Your task to perform on an android device: Is it going to rain today? Image 0: 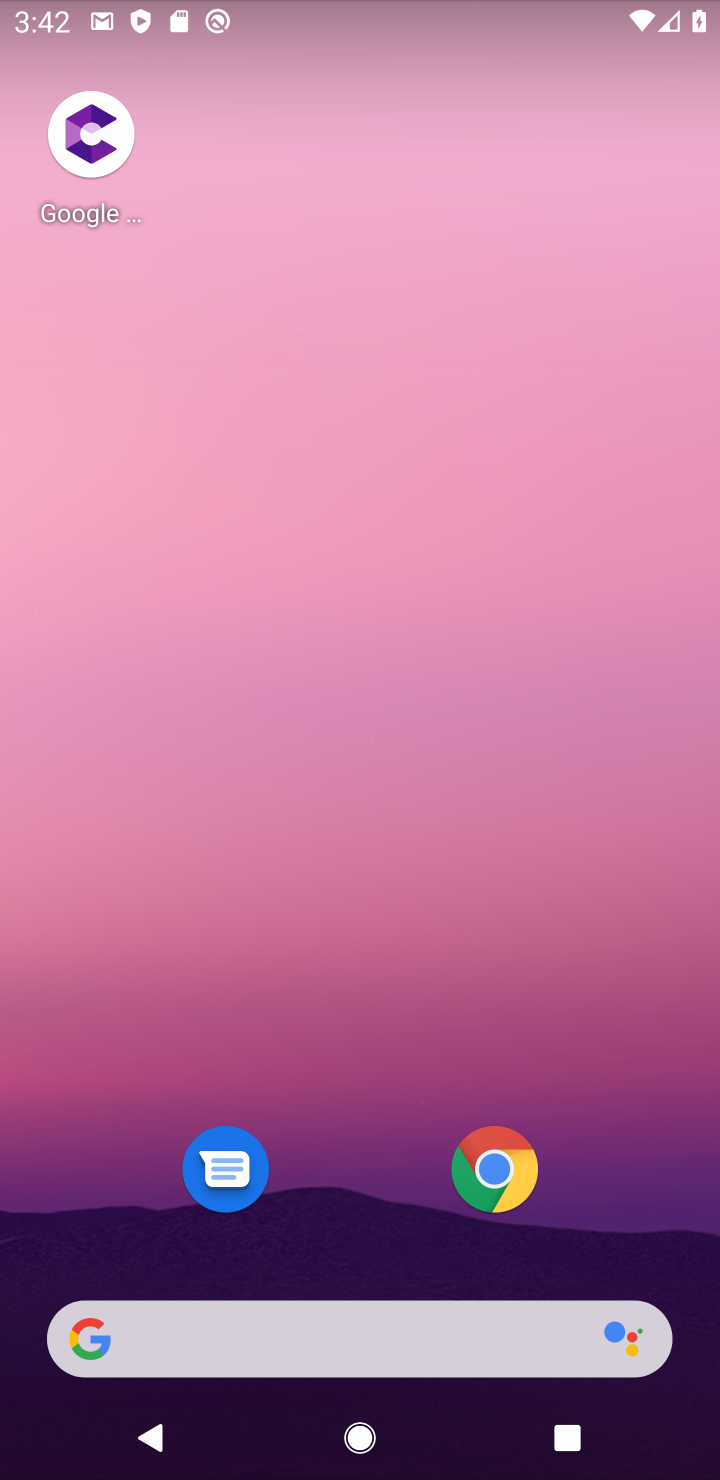
Step 0: click (339, 1326)
Your task to perform on an android device: Is it going to rain today? Image 1: 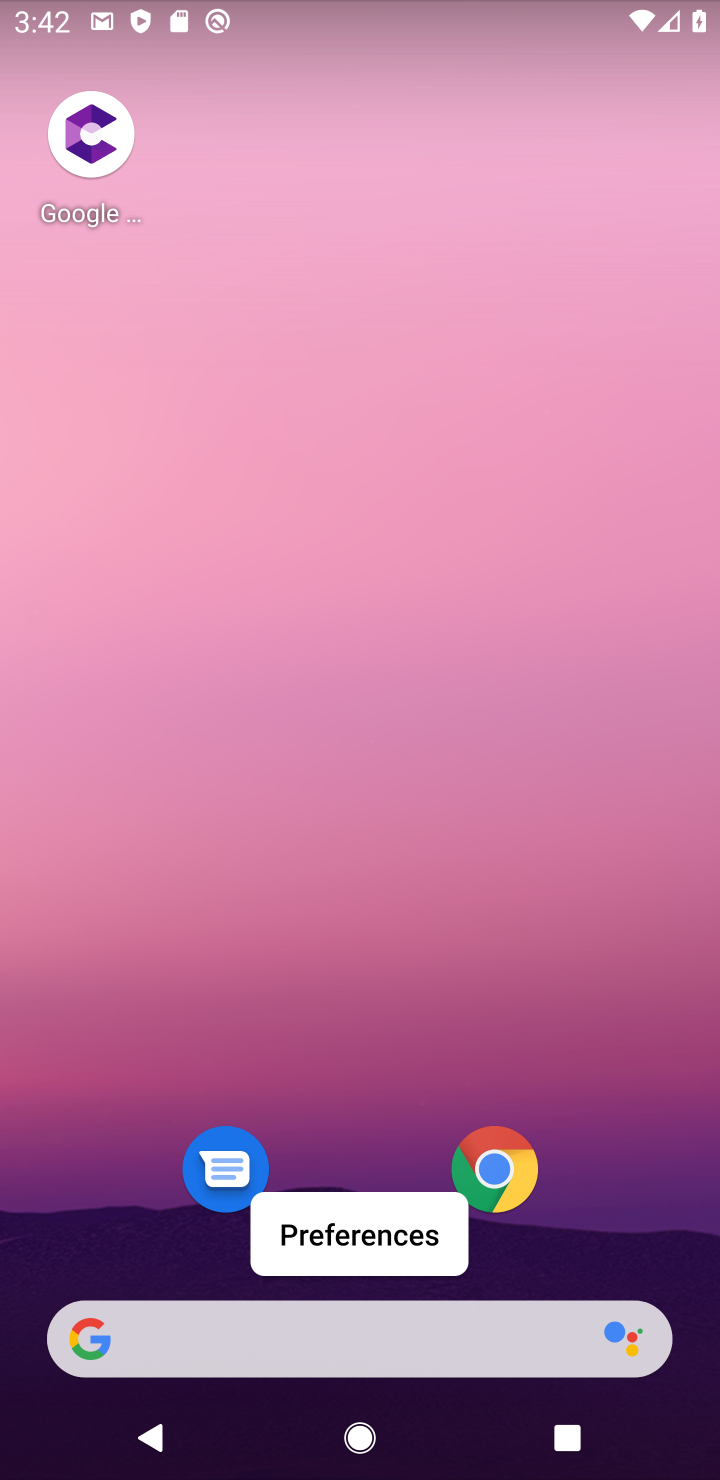
Step 1: click (374, 1341)
Your task to perform on an android device: Is it going to rain today? Image 2: 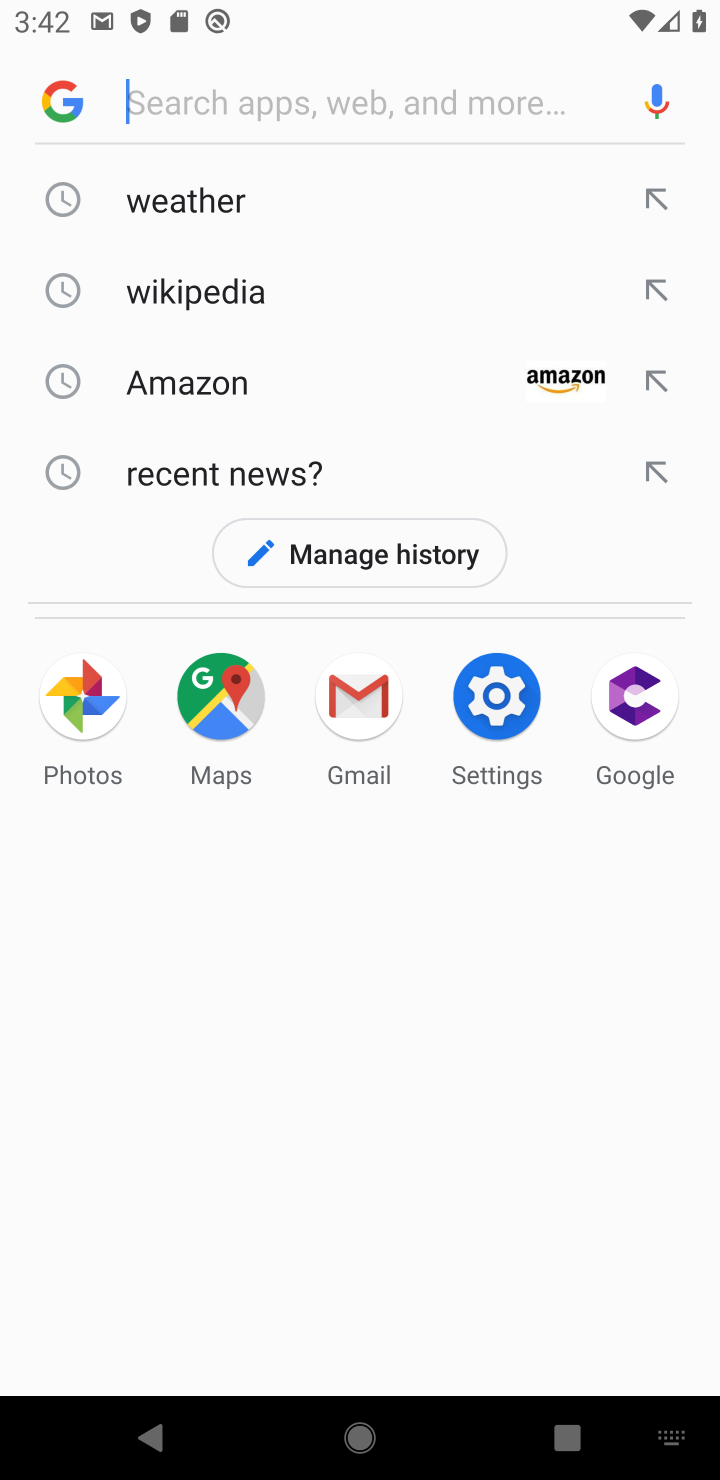
Step 2: click (193, 197)
Your task to perform on an android device: Is it going to rain today? Image 3: 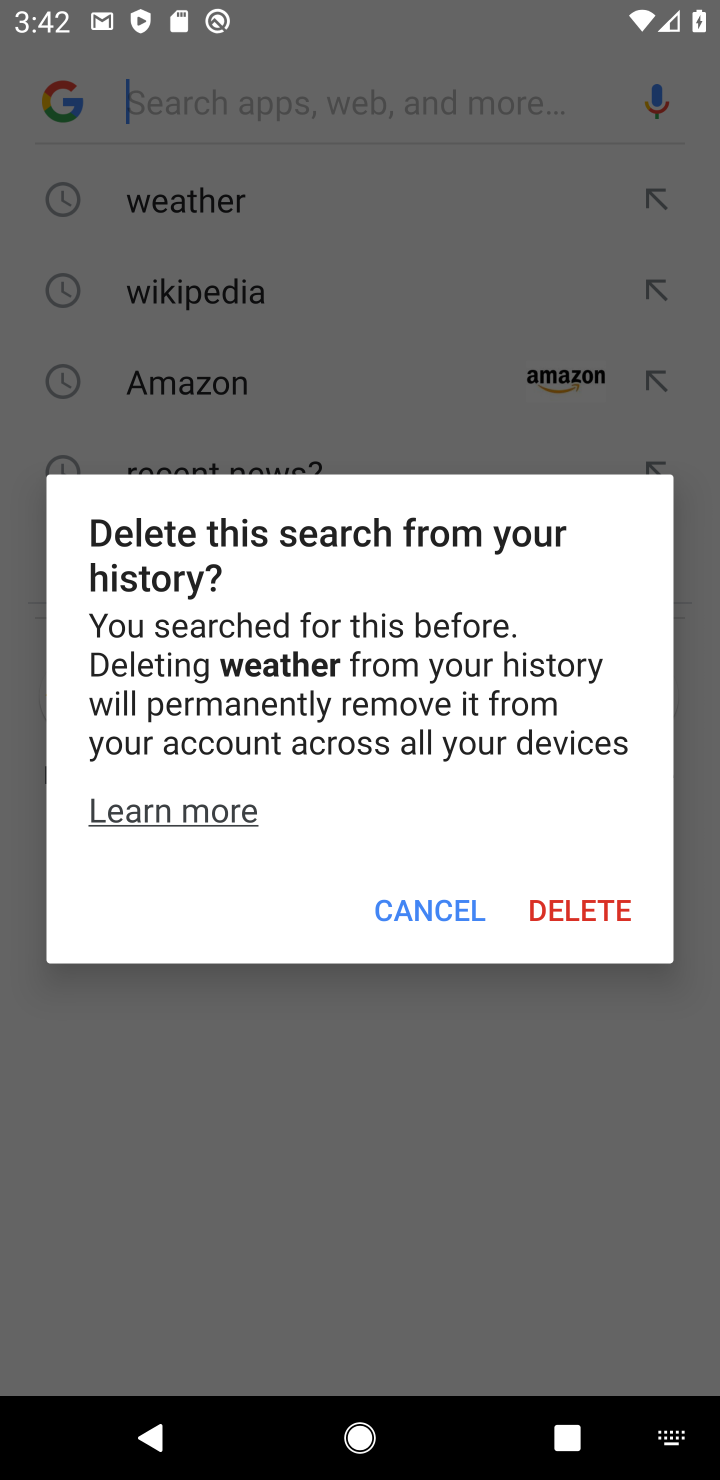
Step 3: click (395, 901)
Your task to perform on an android device: Is it going to rain today? Image 4: 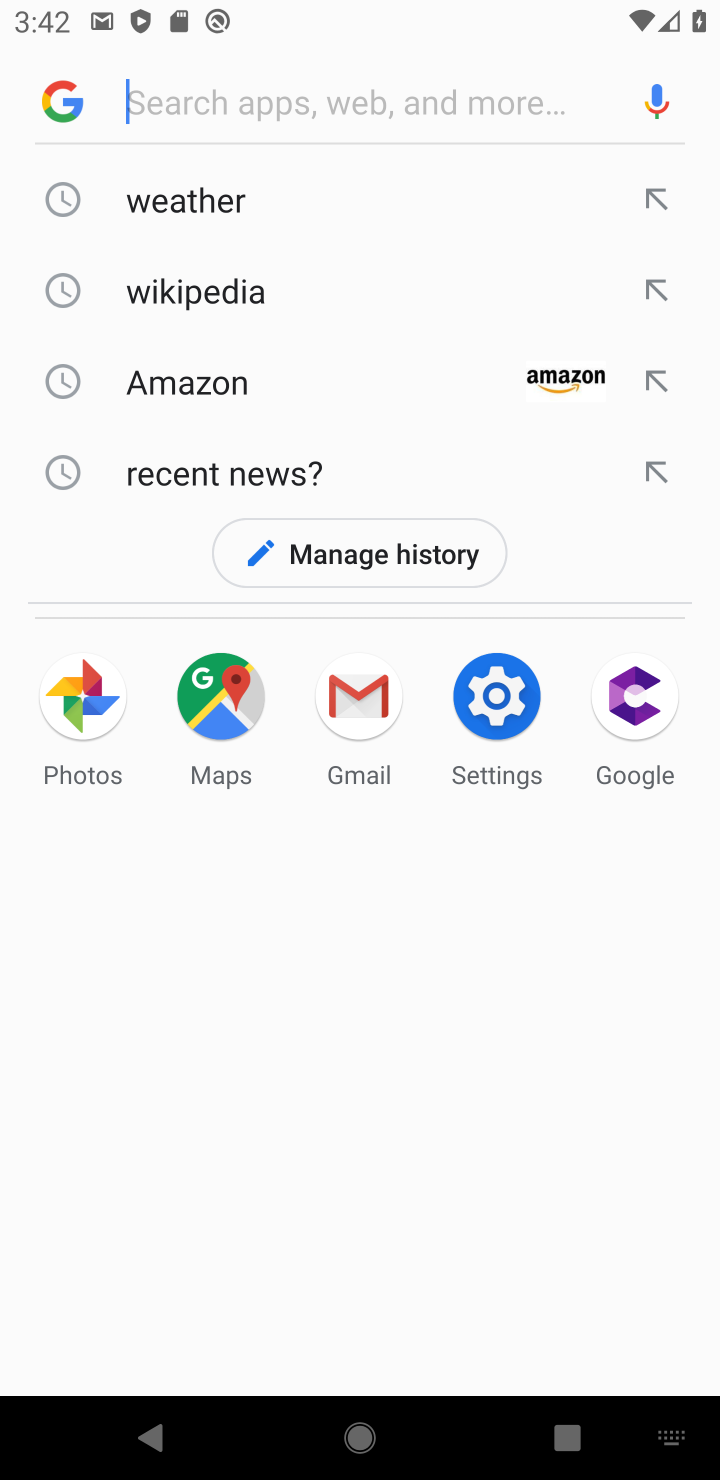
Step 4: click (221, 199)
Your task to perform on an android device: Is it going to rain today? Image 5: 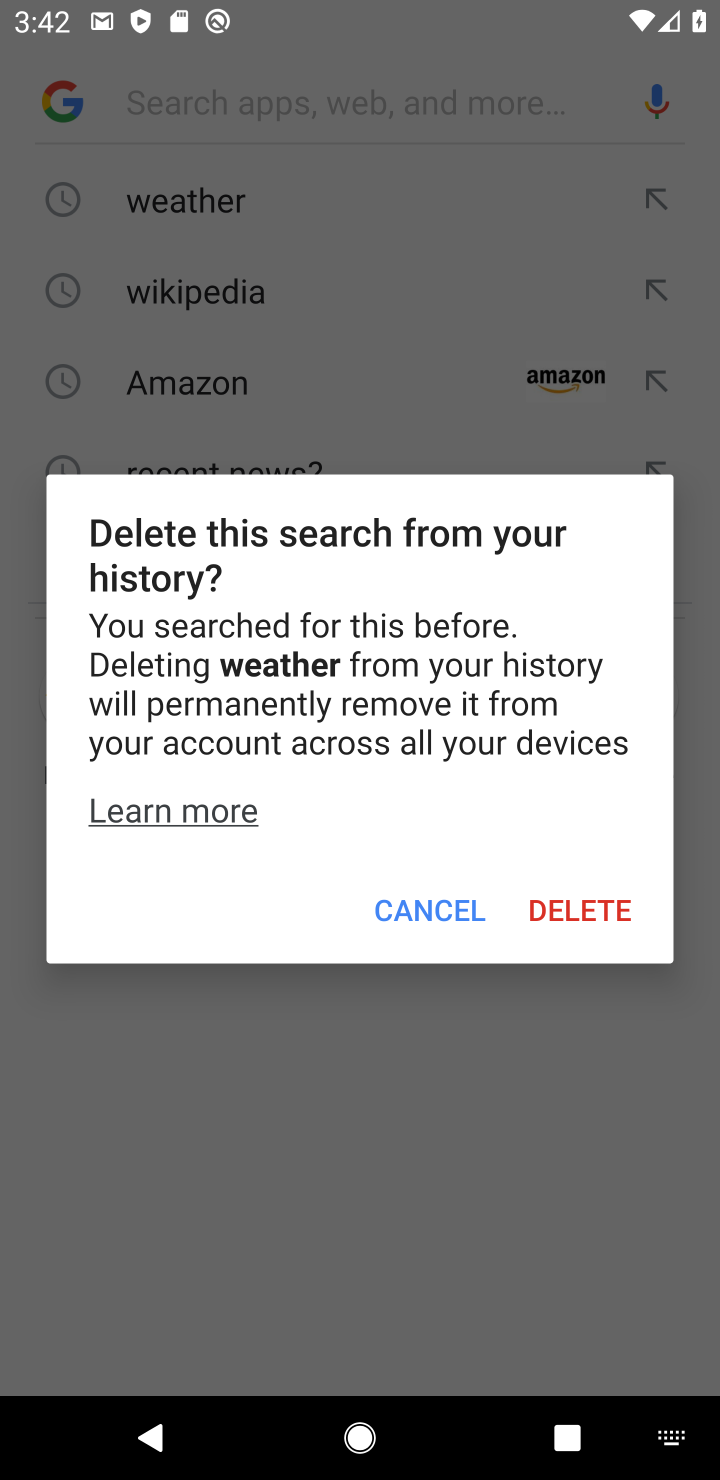
Step 5: click (444, 924)
Your task to perform on an android device: Is it going to rain today? Image 6: 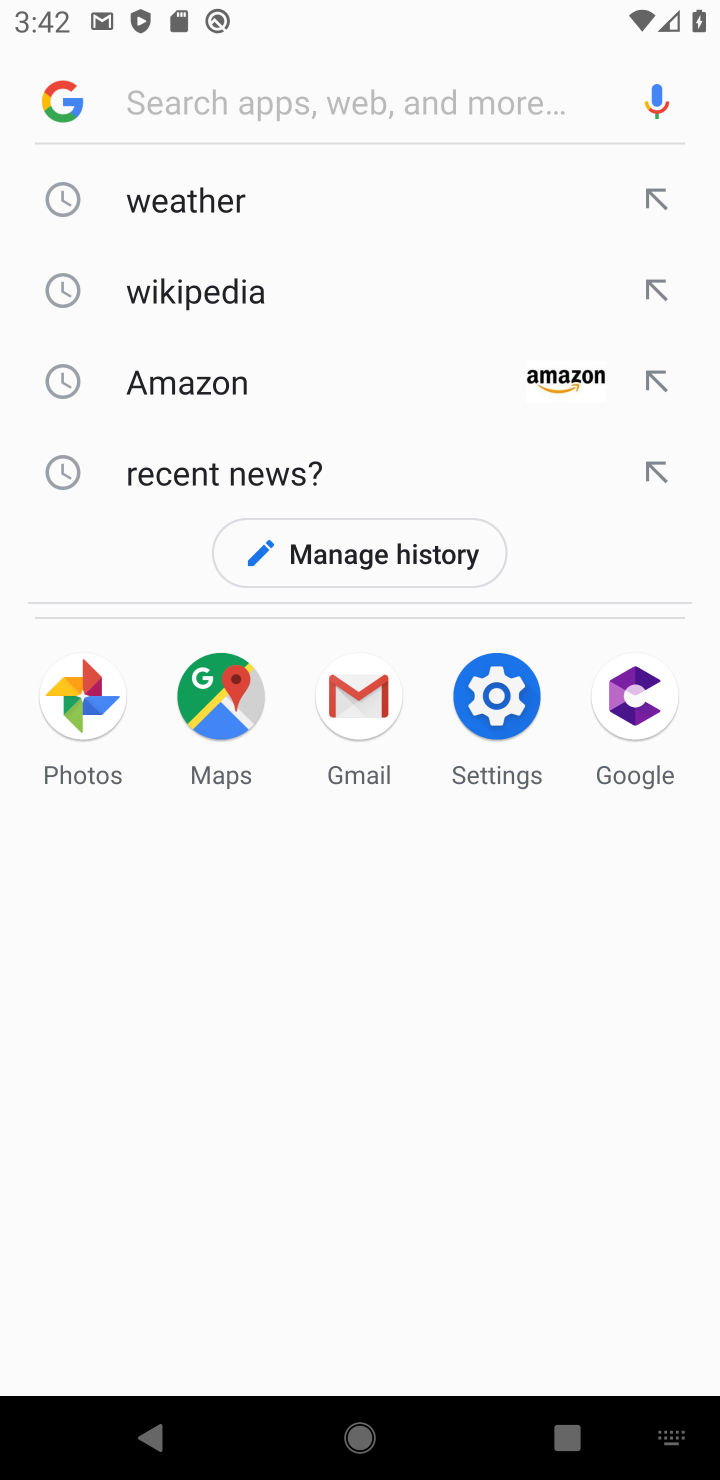
Step 6: click (170, 202)
Your task to perform on an android device: Is it going to rain today? Image 7: 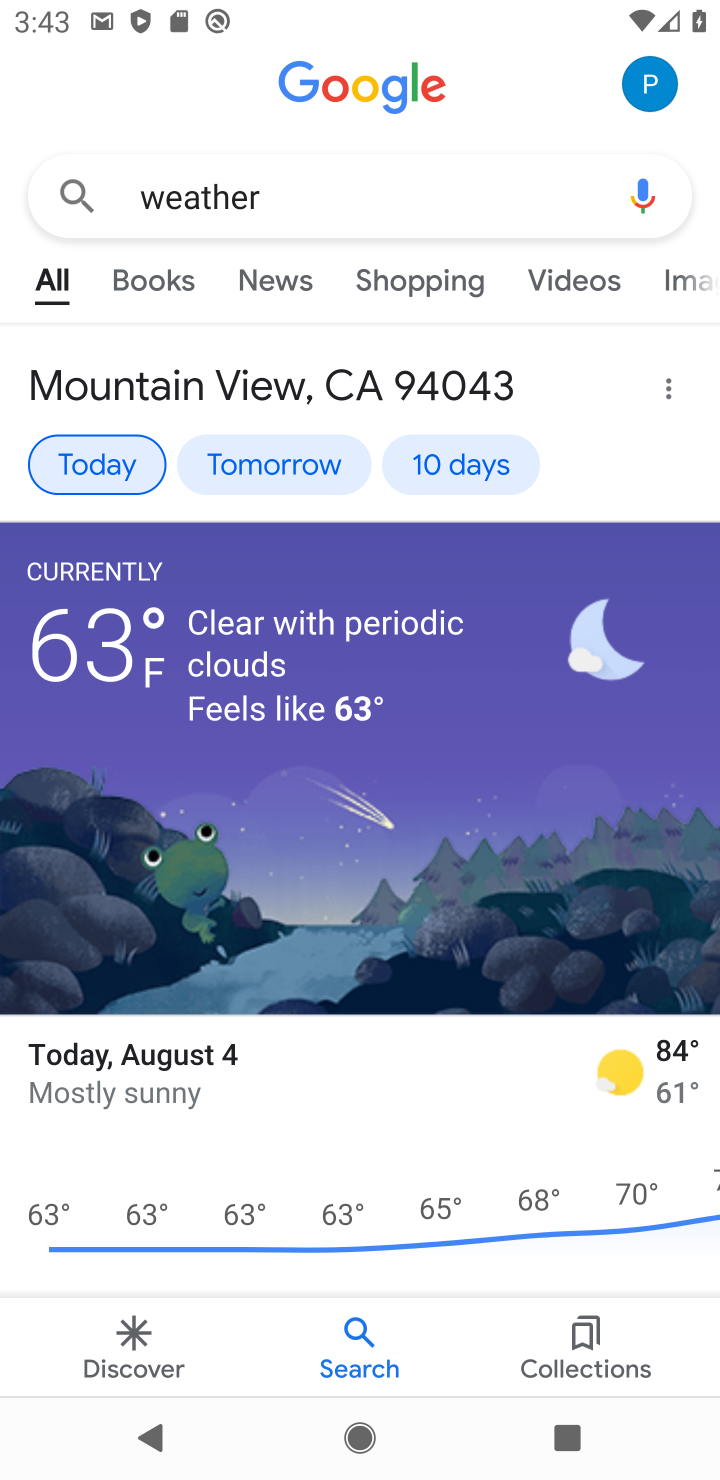
Step 7: task complete